Your task to perform on an android device: Go to settings Image 0: 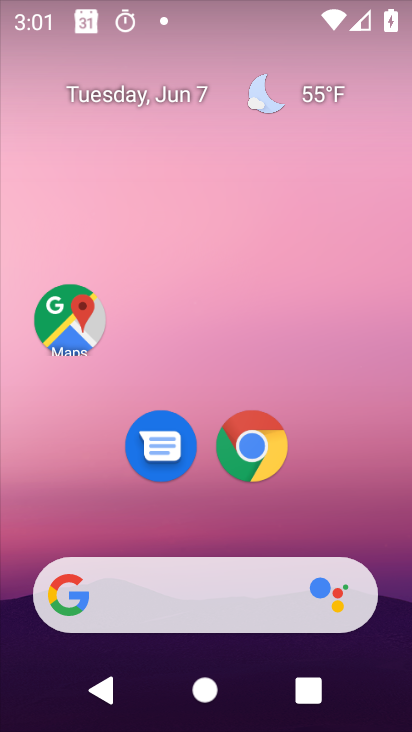
Step 0: drag from (206, 527) to (321, 16)
Your task to perform on an android device: Go to settings Image 1: 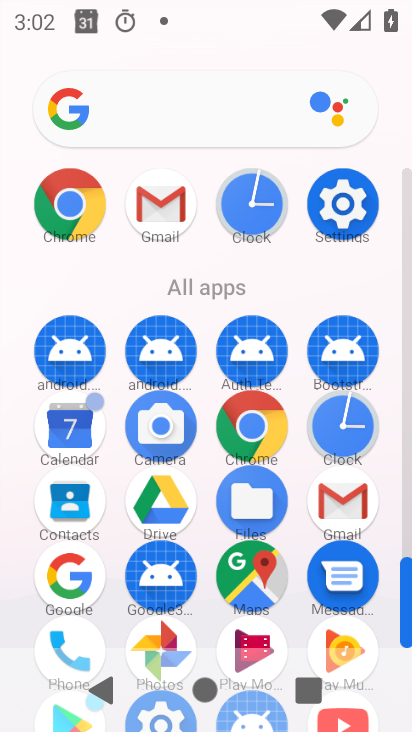
Step 1: click (352, 212)
Your task to perform on an android device: Go to settings Image 2: 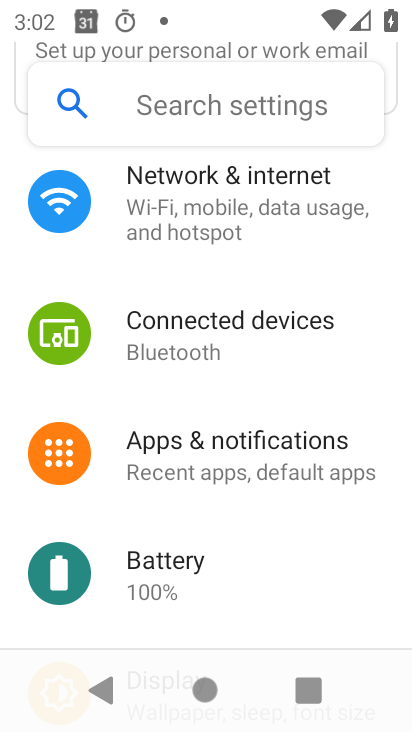
Step 2: task complete